Your task to perform on an android device: Open ESPN.com Image 0: 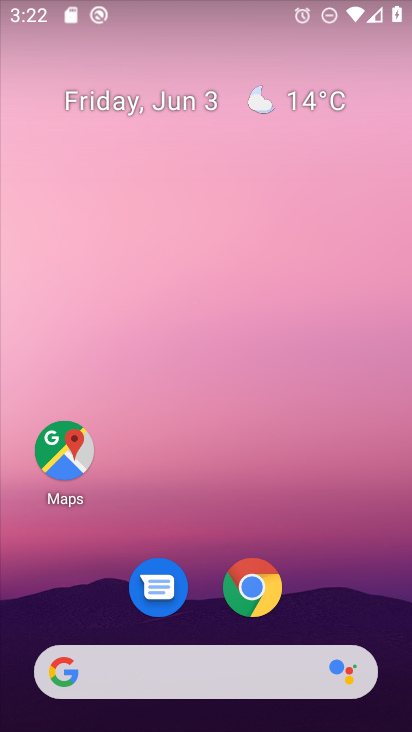
Step 0: click (254, 587)
Your task to perform on an android device: Open ESPN.com Image 1: 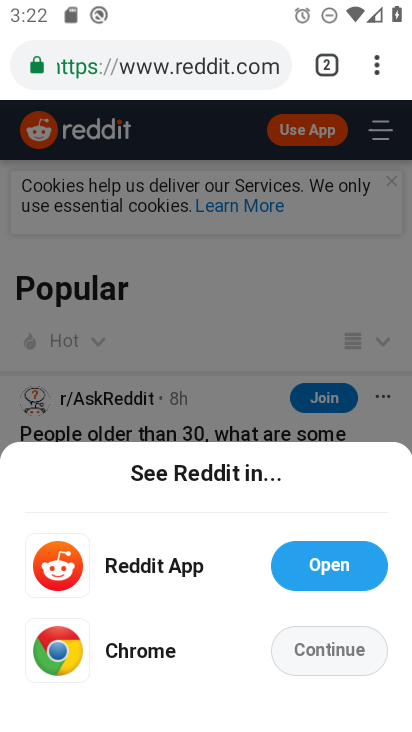
Step 1: click (378, 68)
Your task to perform on an android device: Open ESPN.com Image 2: 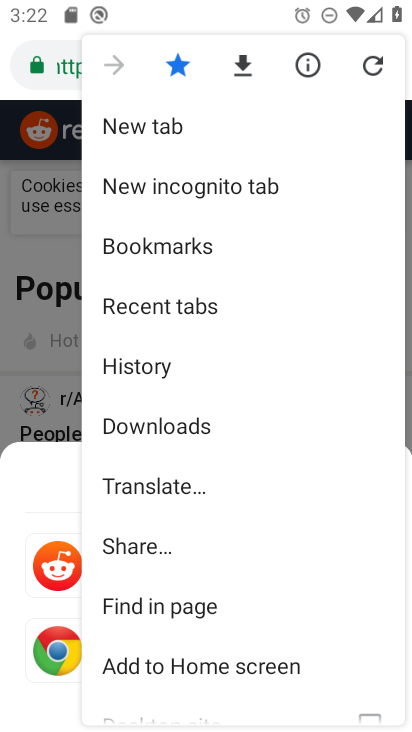
Step 2: click (153, 124)
Your task to perform on an android device: Open ESPN.com Image 3: 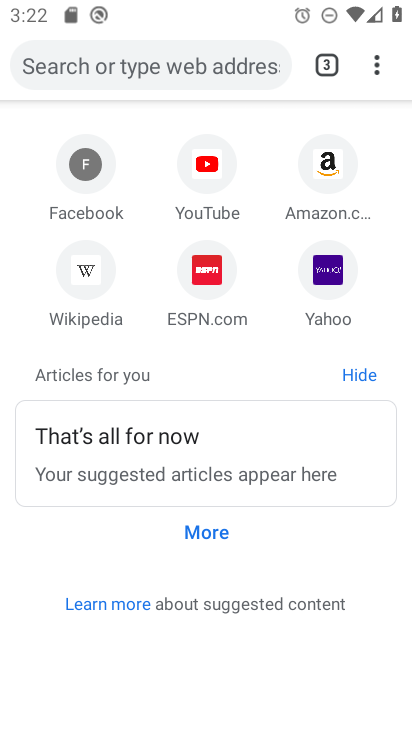
Step 3: click (201, 287)
Your task to perform on an android device: Open ESPN.com Image 4: 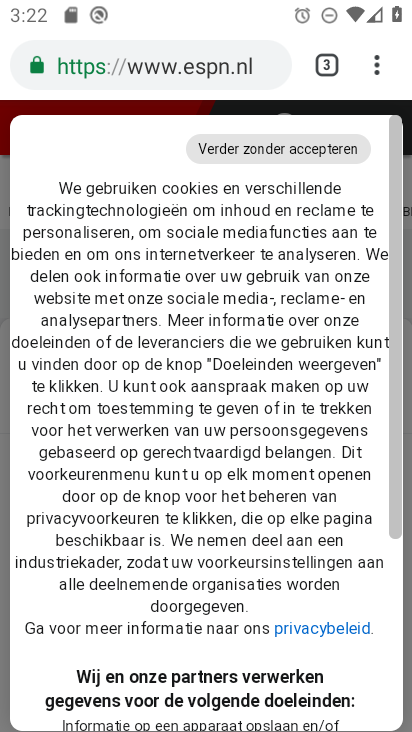
Step 4: drag from (203, 680) to (203, 336)
Your task to perform on an android device: Open ESPN.com Image 5: 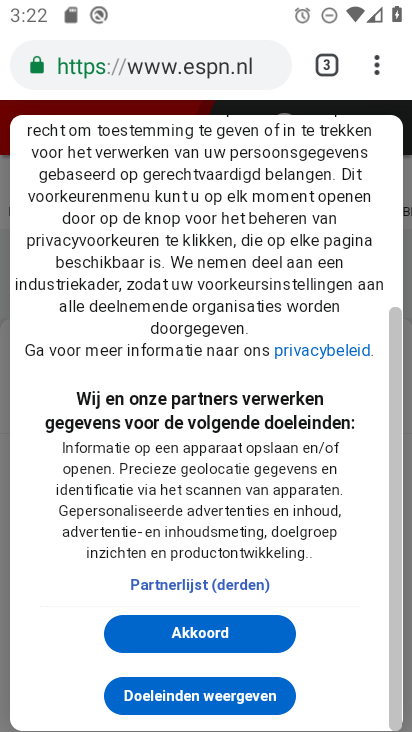
Step 5: click (204, 635)
Your task to perform on an android device: Open ESPN.com Image 6: 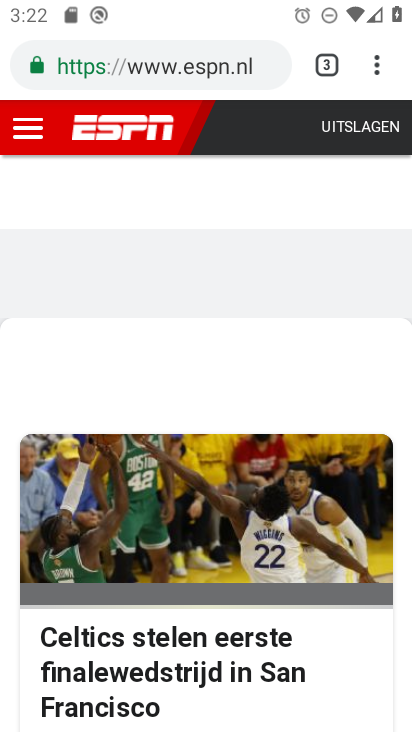
Step 6: task complete